Your task to perform on an android device: Open the web browser Image 0: 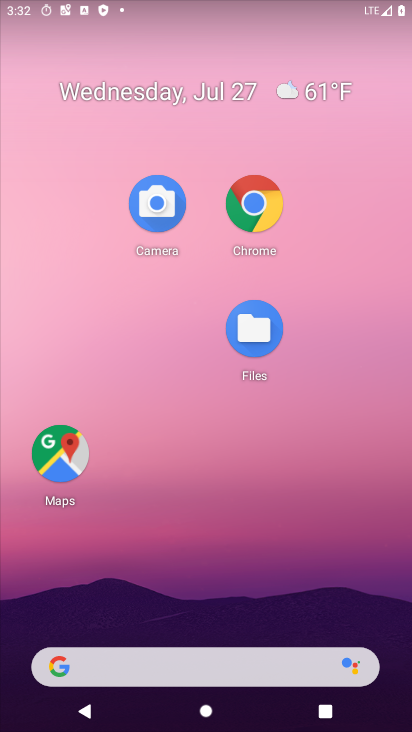
Step 0: click (256, 227)
Your task to perform on an android device: Open the web browser Image 1: 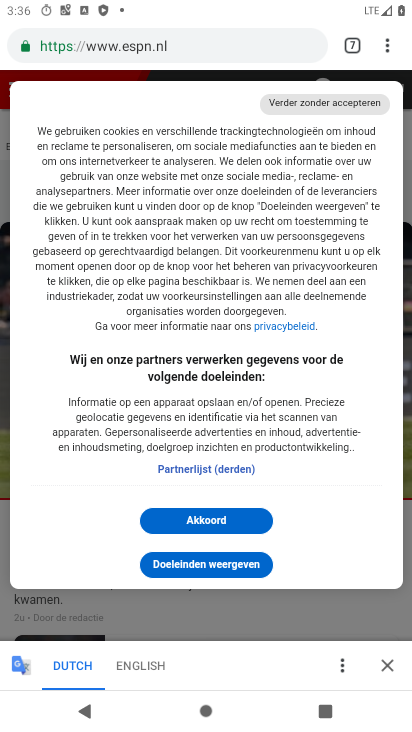
Step 1: task complete